Your task to perform on an android device: change text size in settings app Image 0: 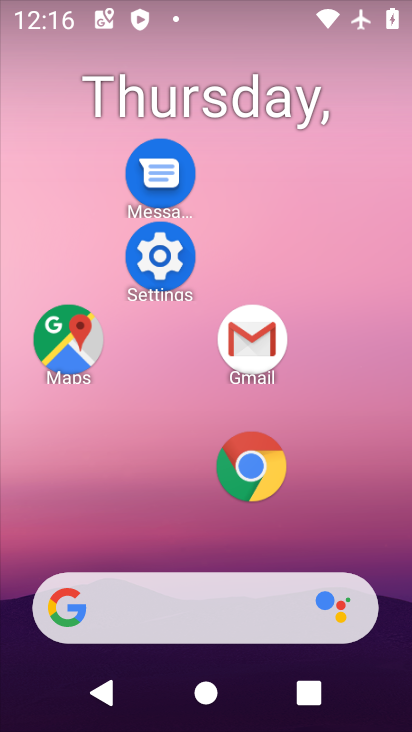
Step 0: click (222, 195)
Your task to perform on an android device: change text size in settings app Image 1: 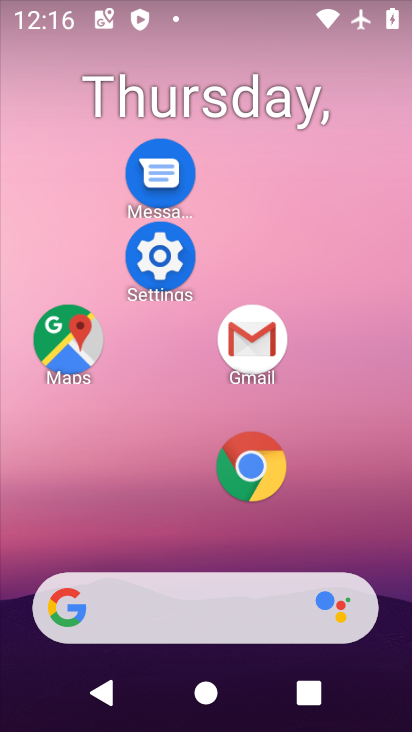
Step 1: click (157, 248)
Your task to perform on an android device: change text size in settings app Image 2: 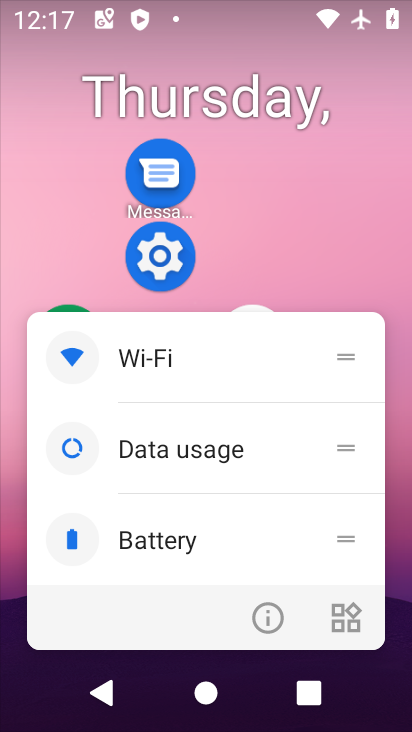
Step 2: click (276, 623)
Your task to perform on an android device: change text size in settings app Image 3: 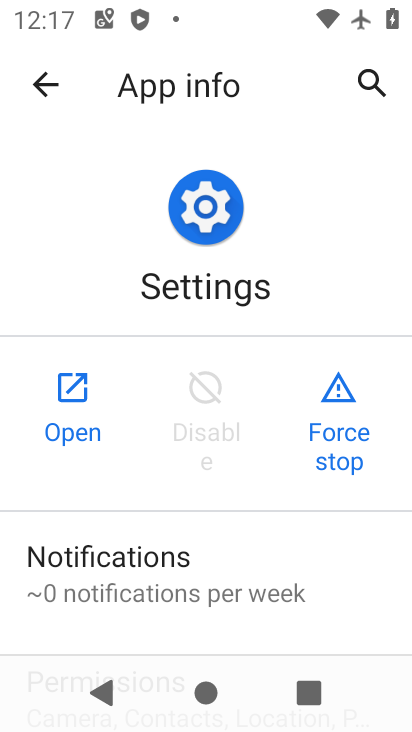
Step 3: click (66, 417)
Your task to perform on an android device: change text size in settings app Image 4: 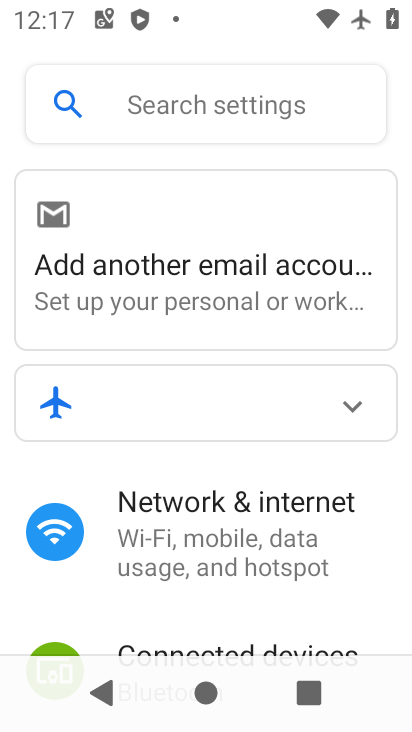
Step 4: drag from (225, 567) to (322, 142)
Your task to perform on an android device: change text size in settings app Image 5: 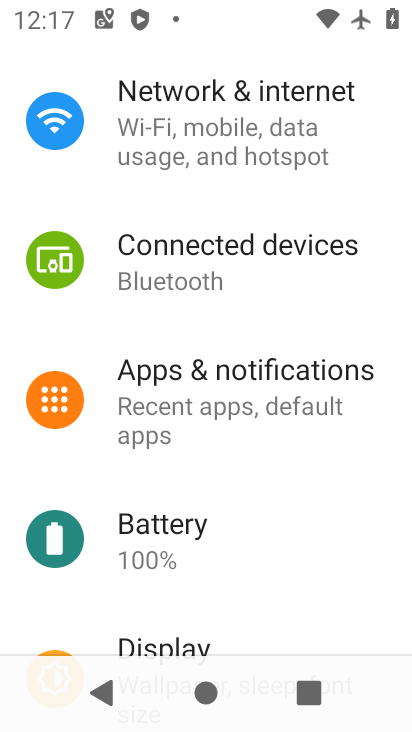
Step 5: drag from (199, 569) to (243, 309)
Your task to perform on an android device: change text size in settings app Image 6: 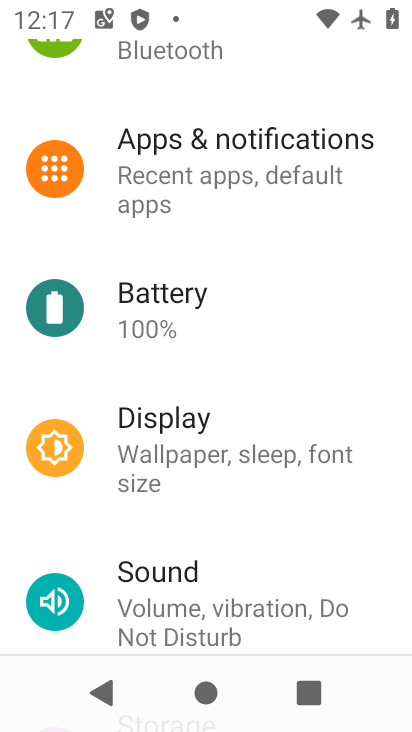
Step 6: click (203, 448)
Your task to perform on an android device: change text size in settings app Image 7: 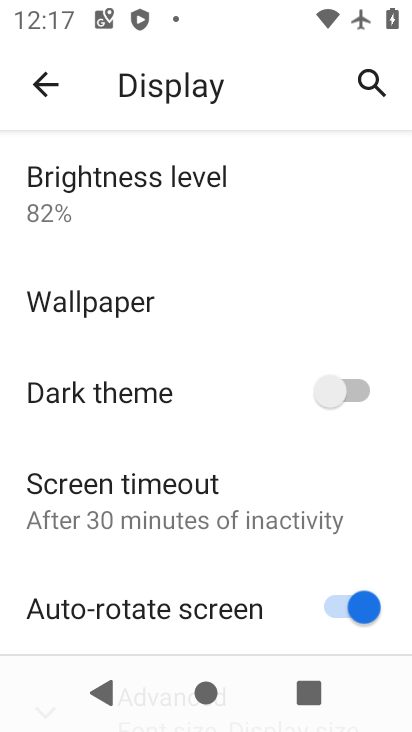
Step 7: drag from (166, 569) to (274, 125)
Your task to perform on an android device: change text size in settings app Image 8: 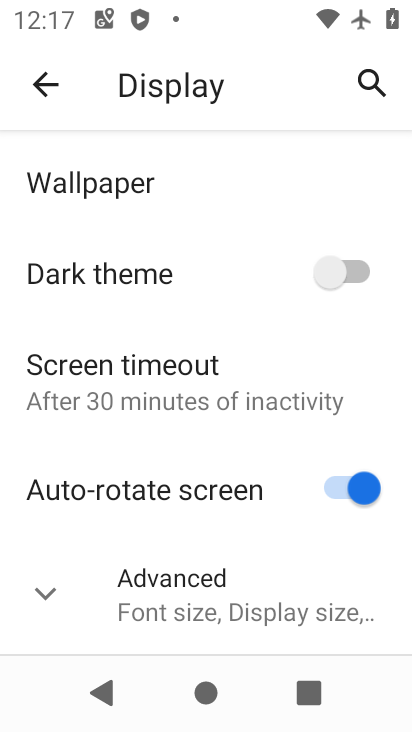
Step 8: click (149, 577)
Your task to perform on an android device: change text size in settings app Image 9: 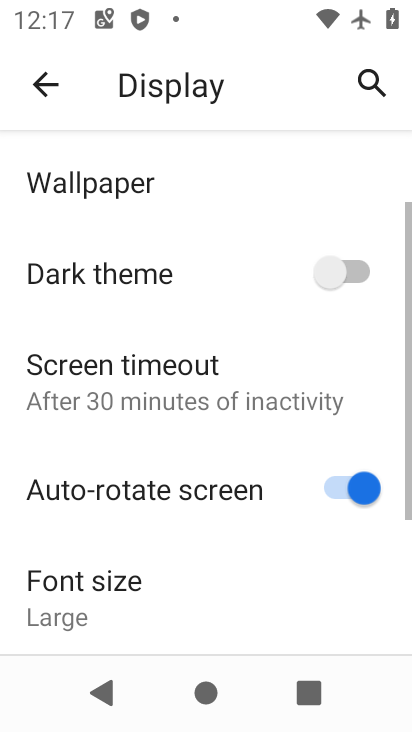
Step 9: drag from (149, 577) to (258, 166)
Your task to perform on an android device: change text size in settings app Image 10: 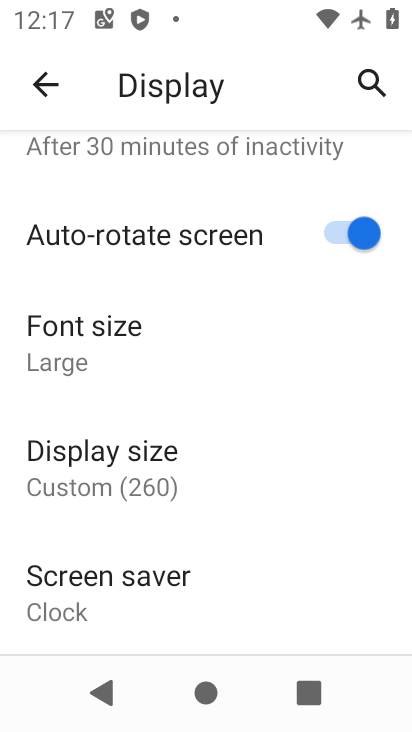
Step 10: click (136, 339)
Your task to perform on an android device: change text size in settings app Image 11: 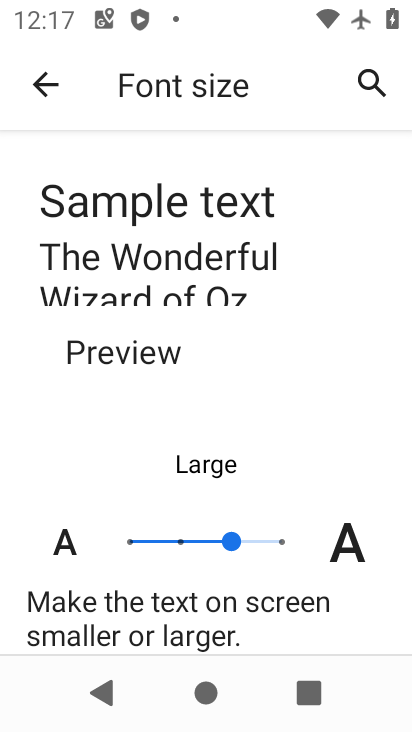
Step 11: click (188, 547)
Your task to perform on an android device: change text size in settings app Image 12: 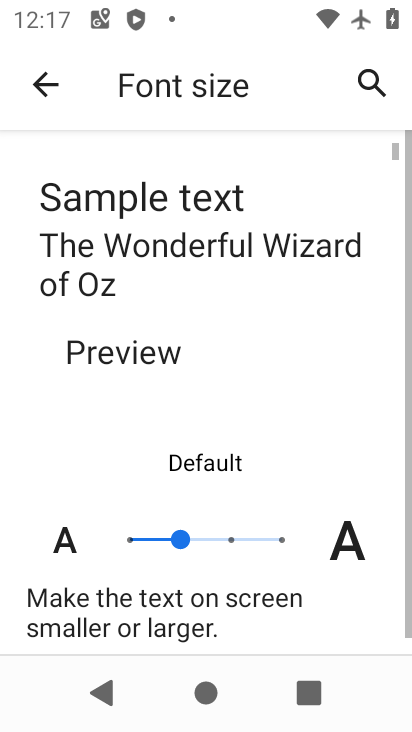
Step 12: task complete